Your task to perform on an android device: toggle notification dots Image 0: 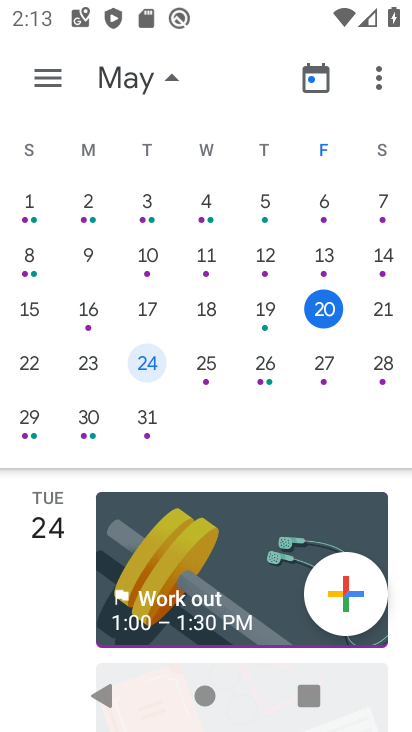
Step 0: press home button
Your task to perform on an android device: toggle notification dots Image 1: 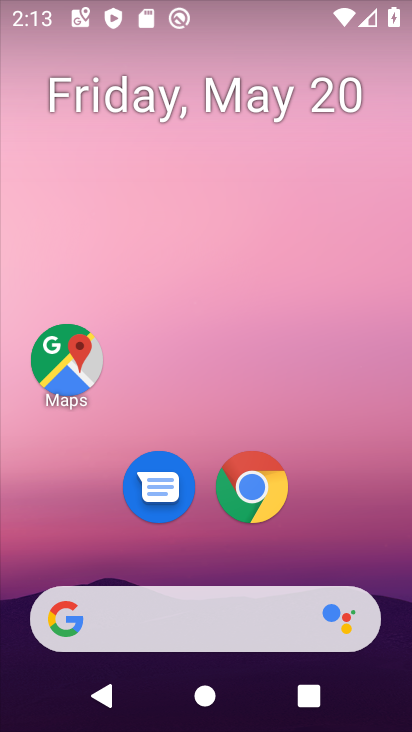
Step 1: drag from (374, 516) to (343, 141)
Your task to perform on an android device: toggle notification dots Image 2: 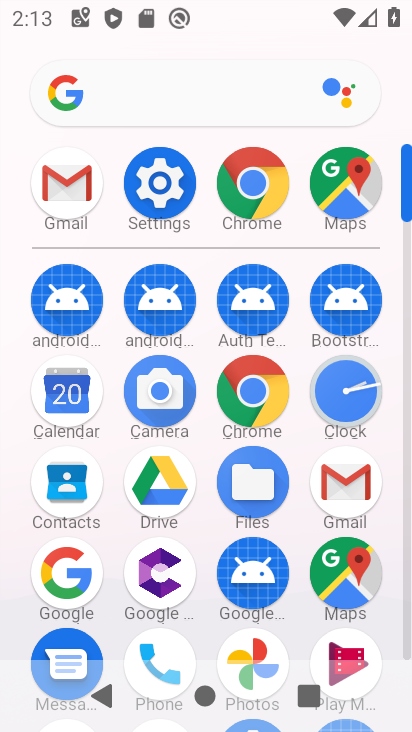
Step 2: click (160, 196)
Your task to perform on an android device: toggle notification dots Image 3: 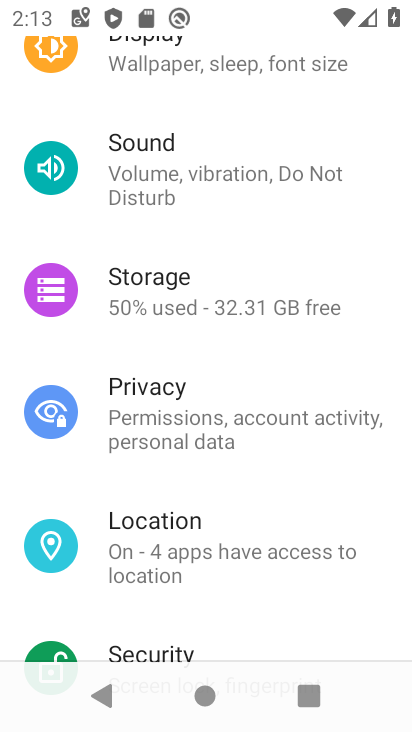
Step 3: drag from (211, 303) to (215, 610)
Your task to perform on an android device: toggle notification dots Image 4: 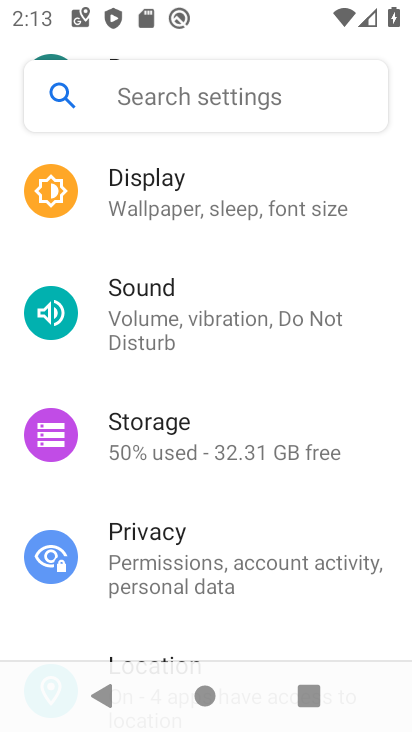
Step 4: drag from (251, 241) to (235, 682)
Your task to perform on an android device: toggle notification dots Image 5: 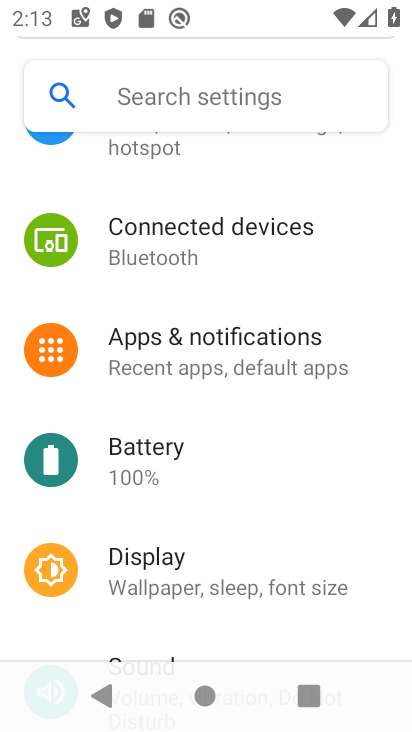
Step 5: click (260, 365)
Your task to perform on an android device: toggle notification dots Image 6: 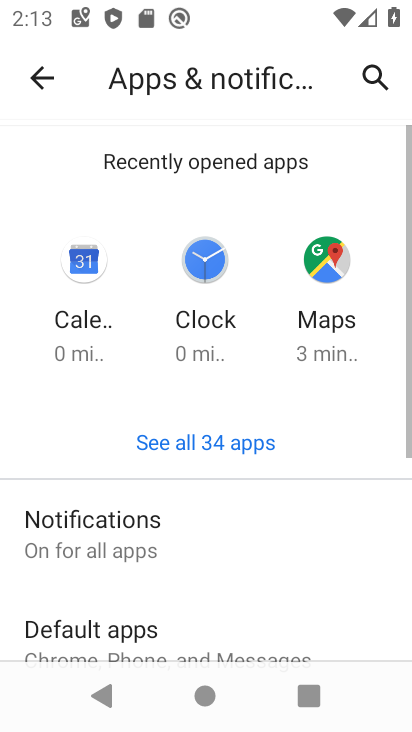
Step 6: click (97, 536)
Your task to perform on an android device: toggle notification dots Image 7: 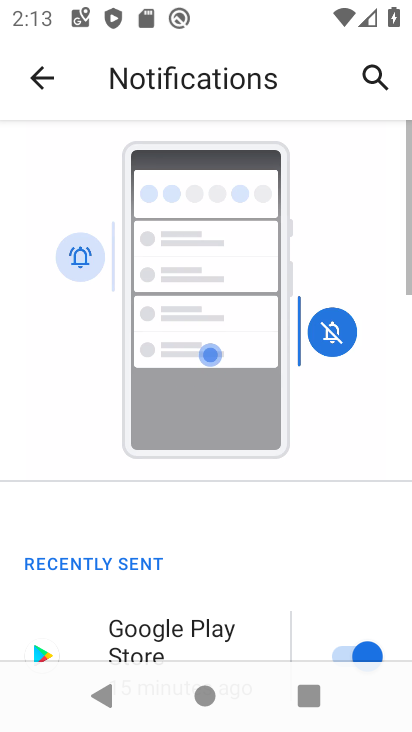
Step 7: drag from (225, 639) to (306, 196)
Your task to perform on an android device: toggle notification dots Image 8: 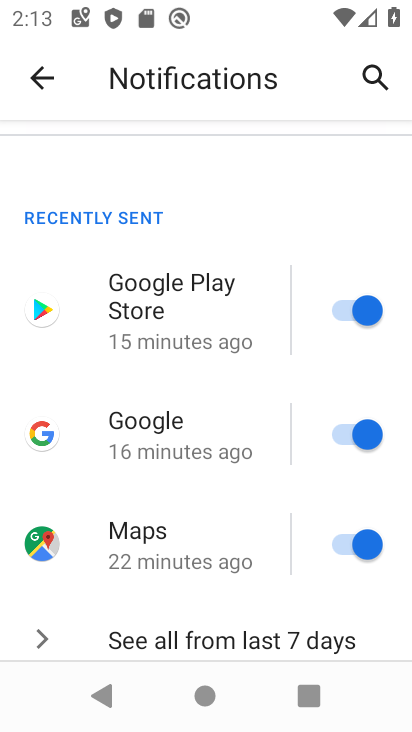
Step 8: drag from (222, 548) to (289, 96)
Your task to perform on an android device: toggle notification dots Image 9: 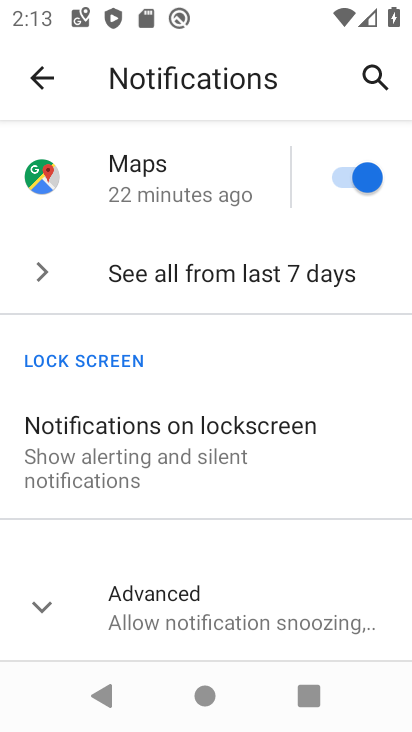
Step 9: click (198, 614)
Your task to perform on an android device: toggle notification dots Image 10: 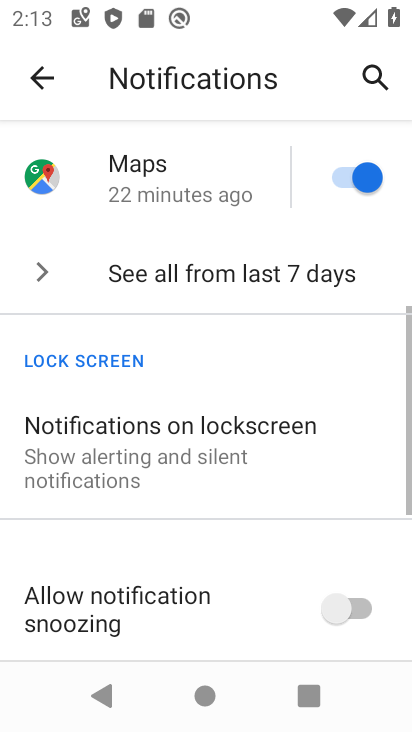
Step 10: drag from (196, 612) to (265, 129)
Your task to perform on an android device: toggle notification dots Image 11: 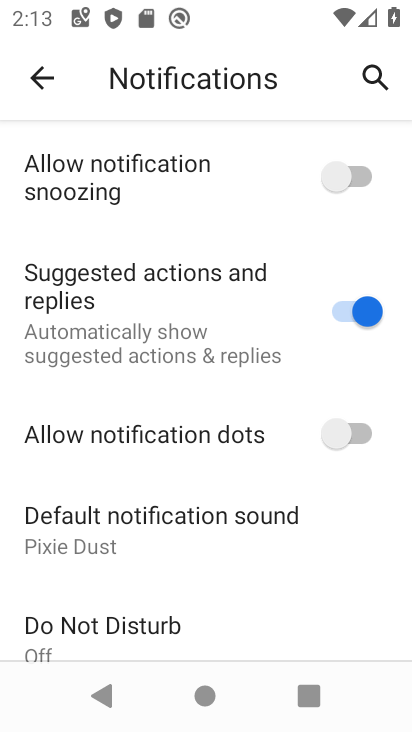
Step 11: click (345, 437)
Your task to perform on an android device: toggle notification dots Image 12: 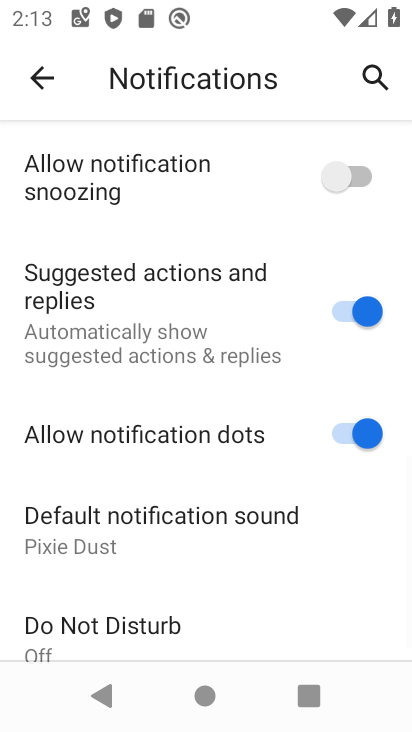
Step 12: task complete